Your task to perform on an android device: turn on airplane mode Image 0: 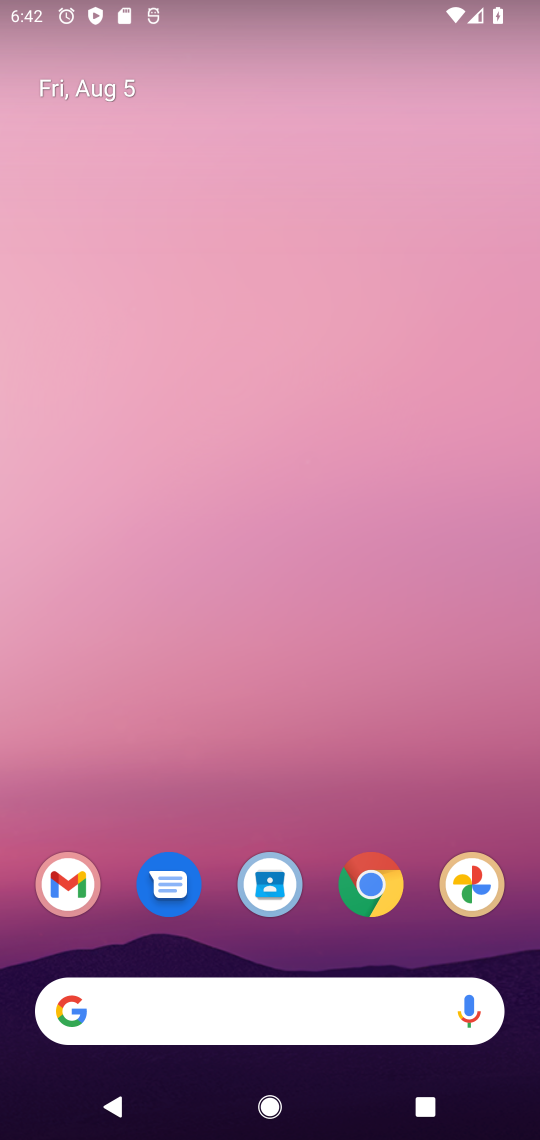
Step 0: press home button
Your task to perform on an android device: turn on airplane mode Image 1: 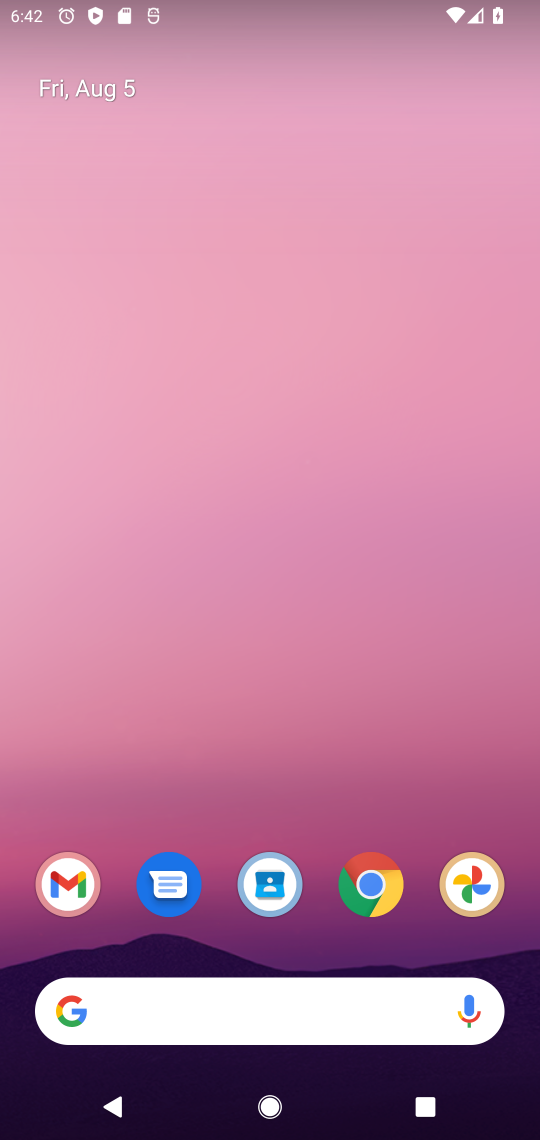
Step 1: drag from (326, 829) to (341, 3)
Your task to perform on an android device: turn on airplane mode Image 2: 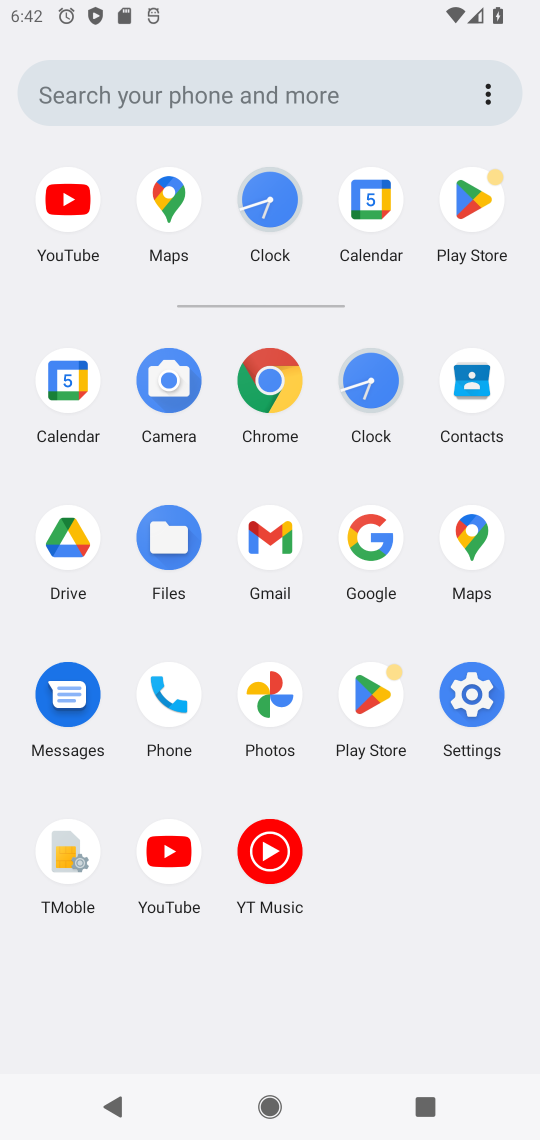
Step 2: drag from (394, 10) to (389, 694)
Your task to perform on an android device: turn on airplane mode Image 3: 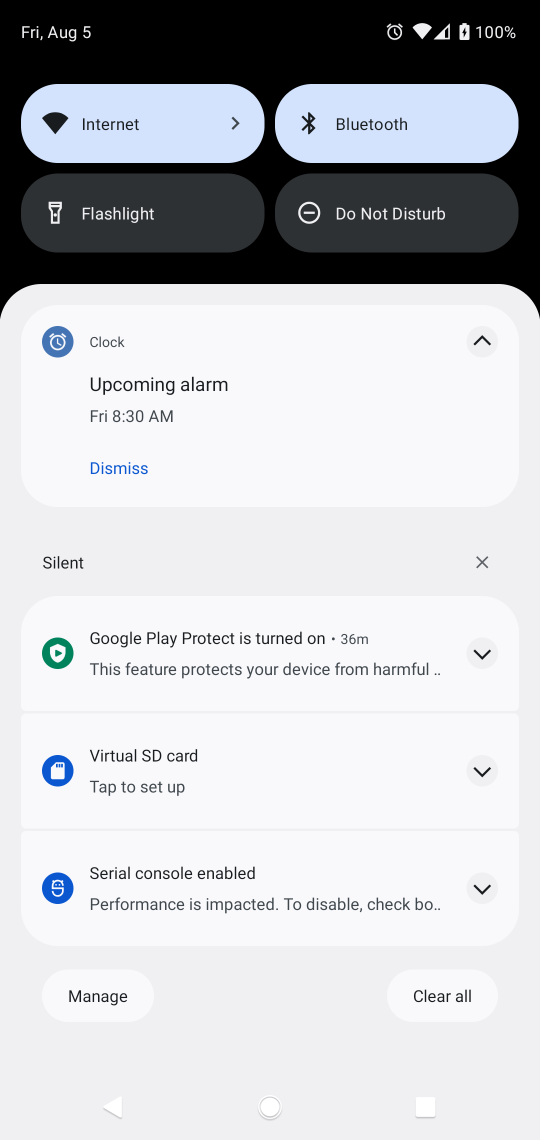
Step 3: press back button
Your task to perform on an android device: turn on airplane mode Image 4: 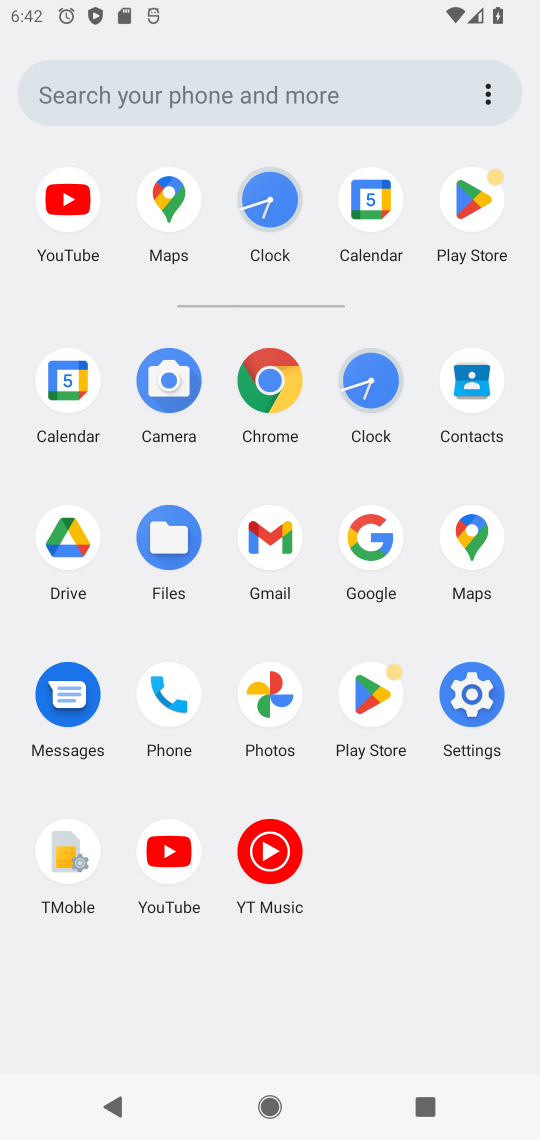
Step 4: click (473, 686)
Your task to perform on an android device: turn on airplane mode Image 5: 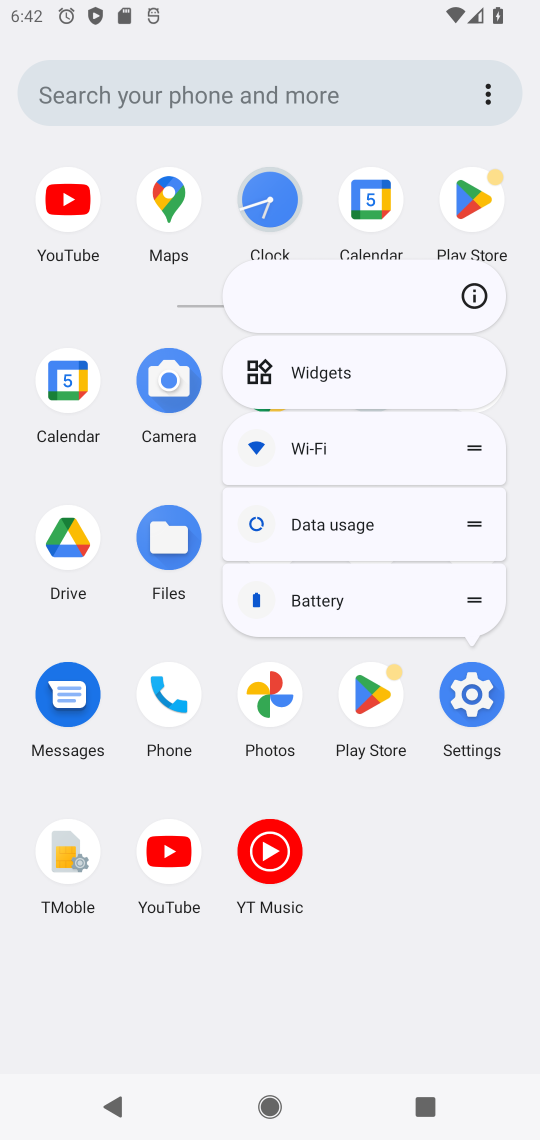
Step 5: click (473, 686)
Your task to perform on an android device: turn on airplane mode Image 6: 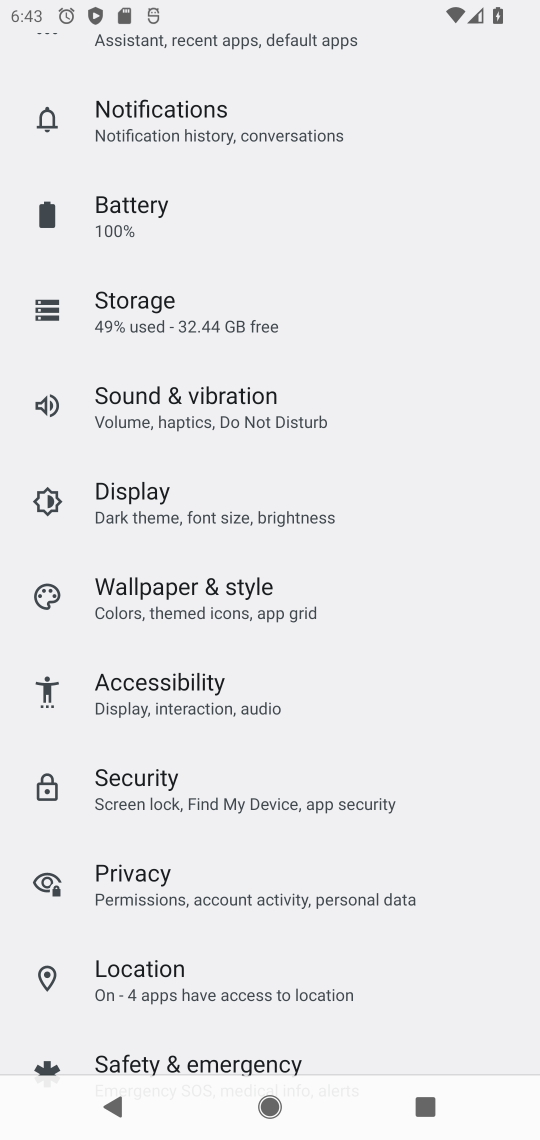
Step 6: drag from (254, 160) to (266, 859)
Your task to perform on an android device: turn on airplane mode Image 7: 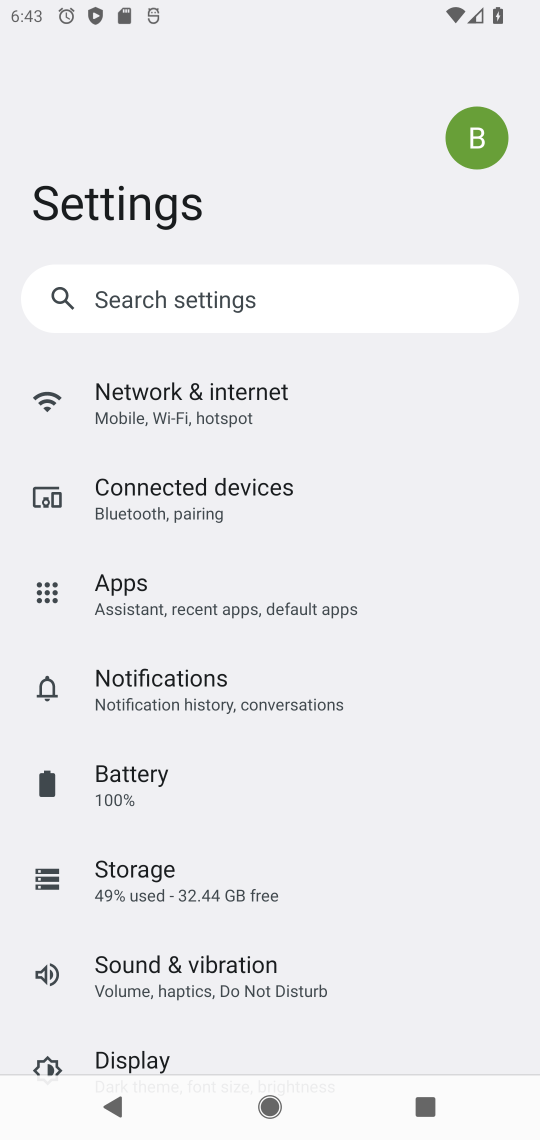
Step 7: click (308, 398)
Your task to perform on an android device: turn on airplane mode Image 8: 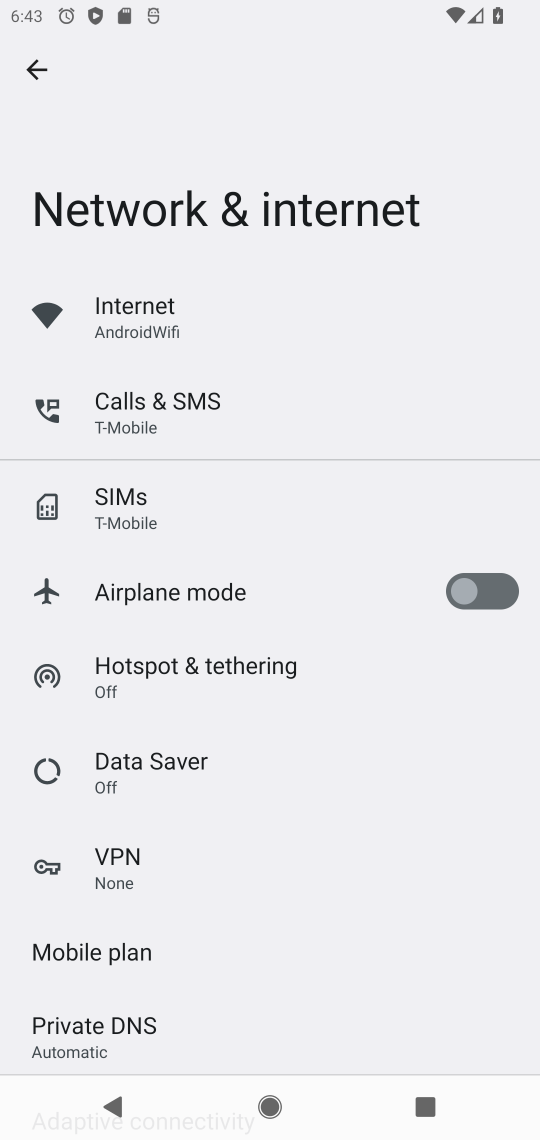
Step 8: click (489, 585)
Your task to perform on an android device: turn on airplane mode Image 9: 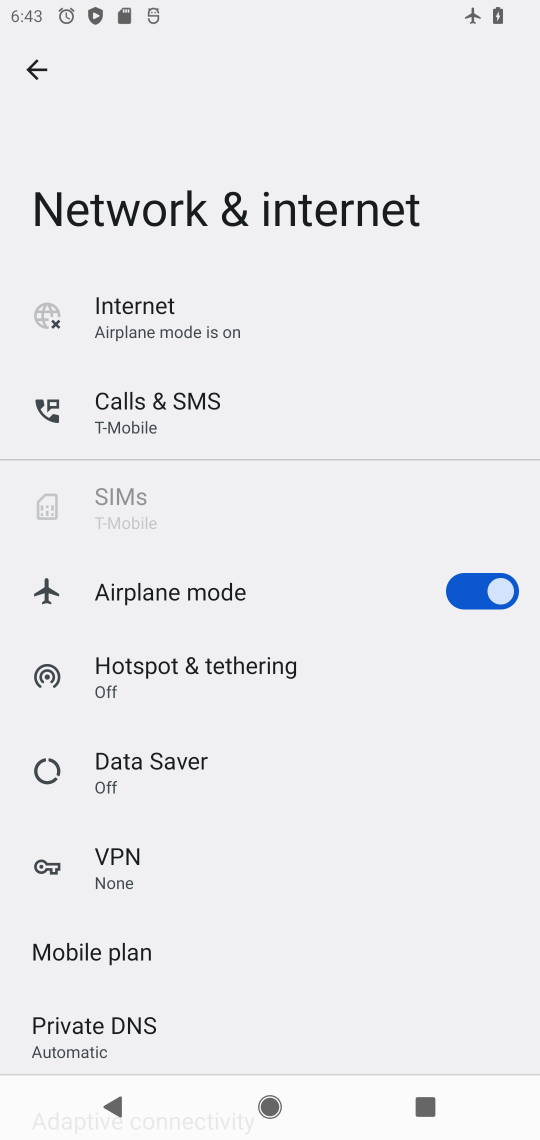
Step 9: task complete